Your task to perform on an android device: make emails show in primary in the gmail app Image 0: 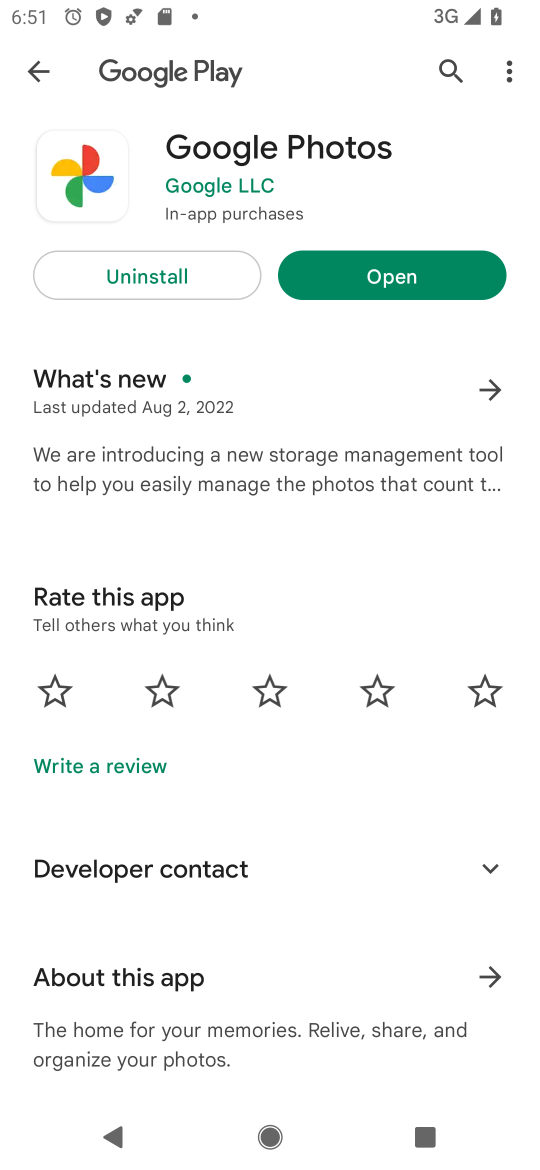
Step 0: press home button
Your task to perform on an android device: make emails show in primary in the gmail app Image 1: 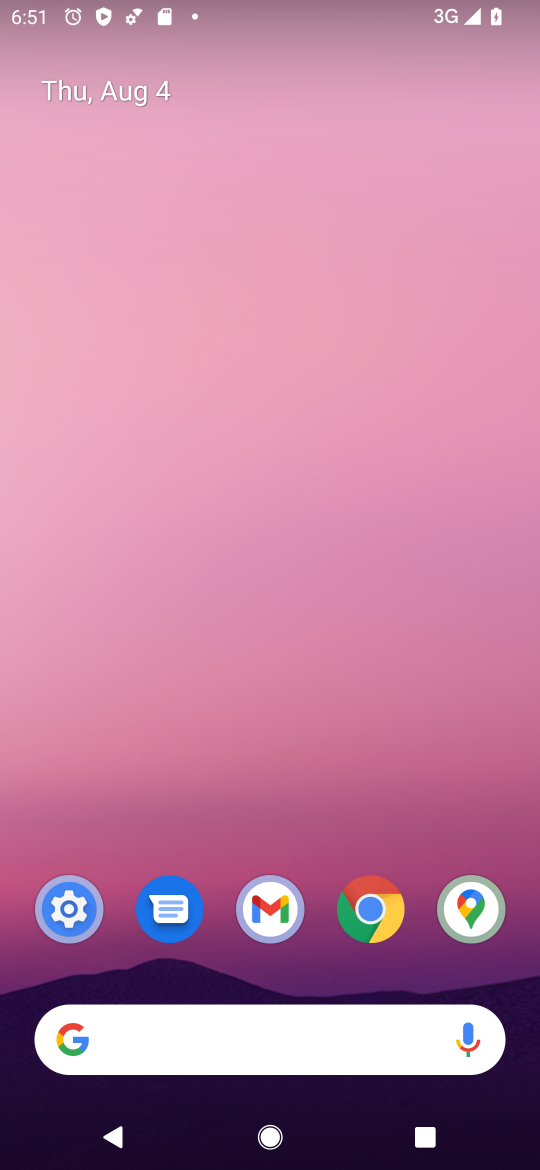
Step 1: drag from (299, 811) to (18, 0)
Your task to perform on an android device: make emails show in primary in the gmail app Image 2: 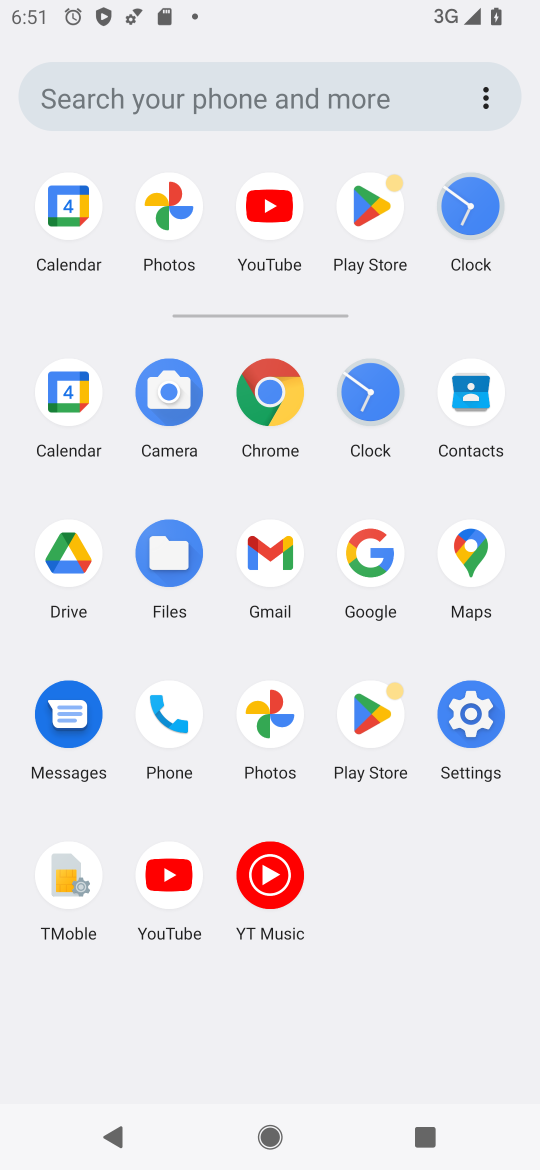
Step 2: click (282, 568)
Your task to perform on an android device: make emails show in primary in the gmail app Image 3: 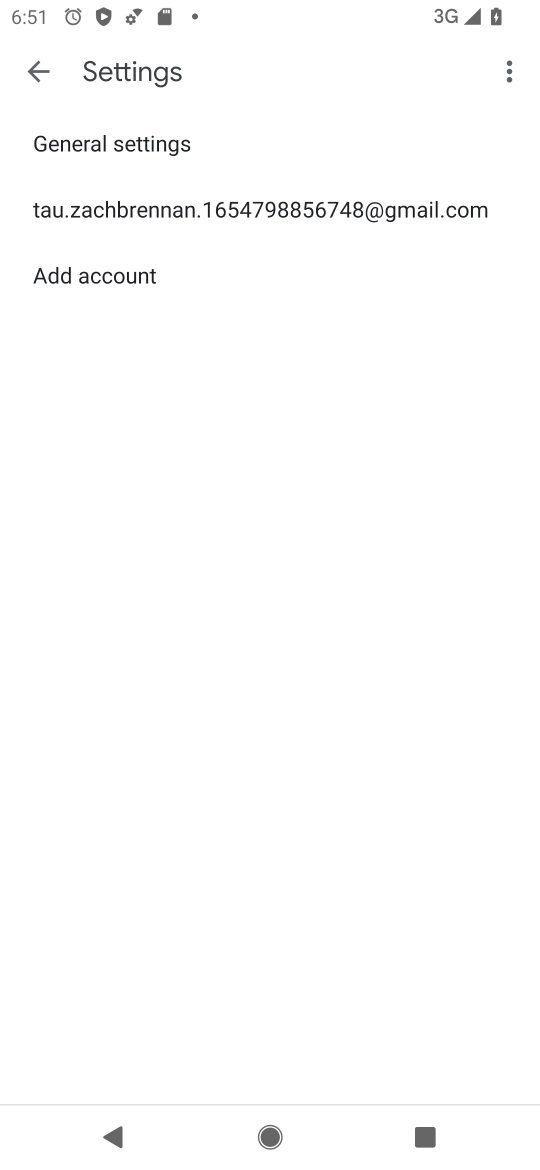
Step 3: click (50, 214)
Your task to perform on an android device: make emails show in primary in the gmail app Image 4: 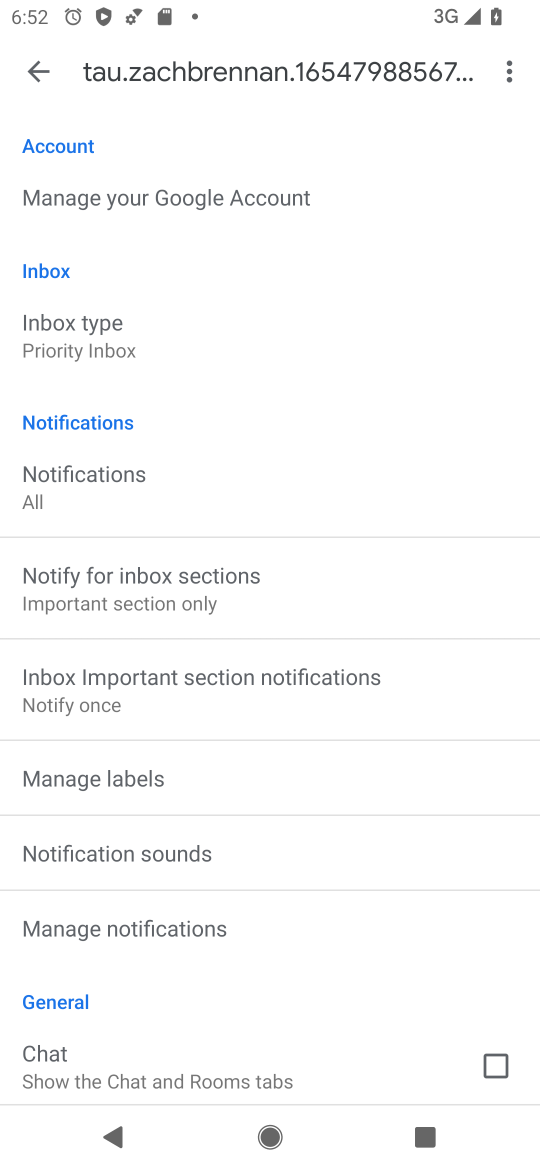
Step 4: click (36, 336)
Your task to perform on an android device: make emails show in primary in the gmail app Image 5: 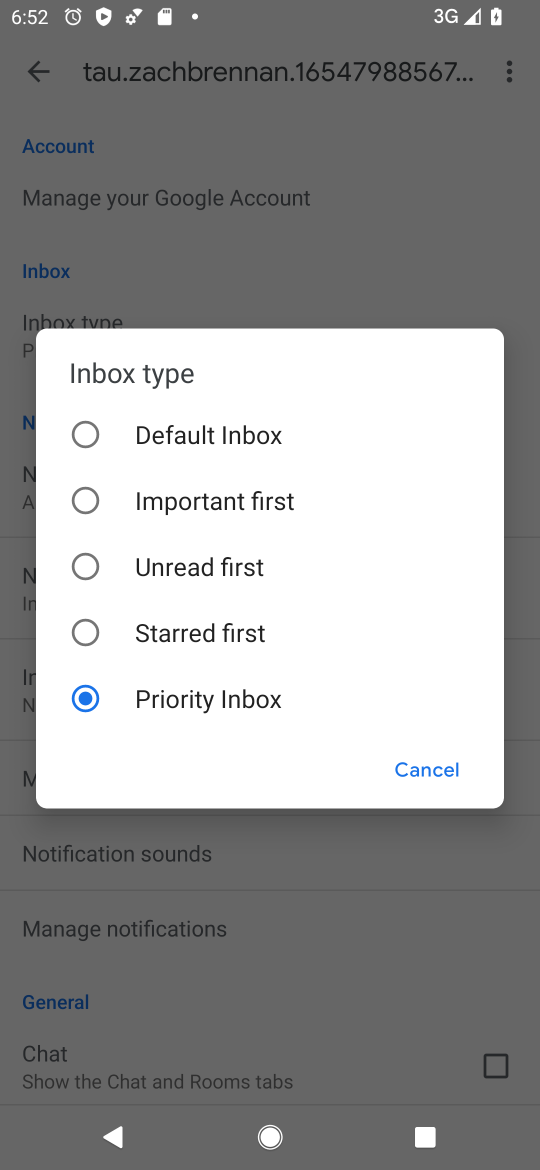
Step 5: click (94, 435)
Your task to perform on an android device: make emails show in primary in the gmail app Image 6: 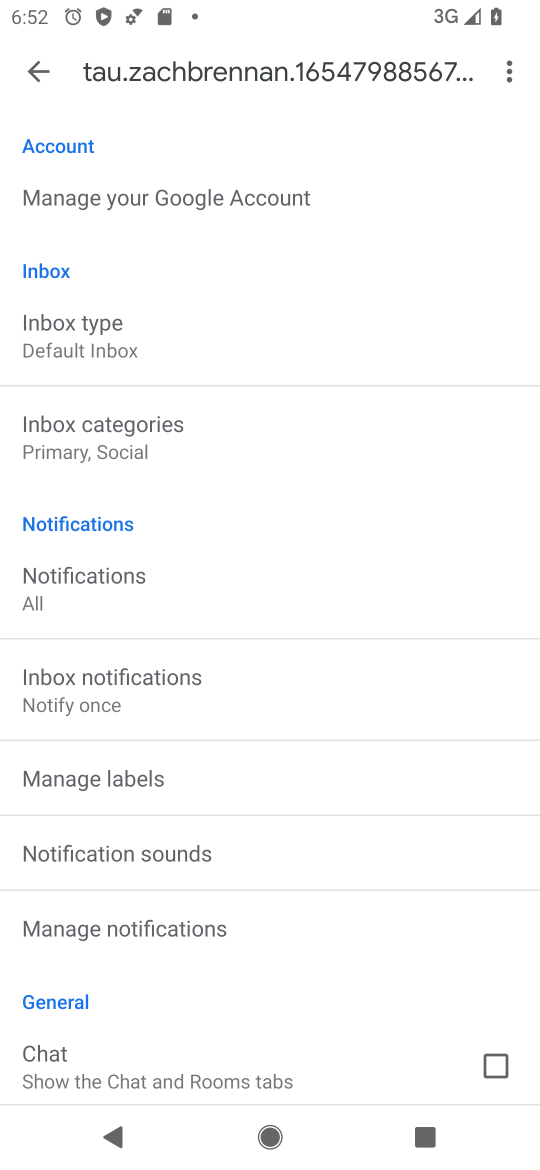
Step 6: task complete